Your task to perform on an android device: Open settings on Google Maps Image 0: 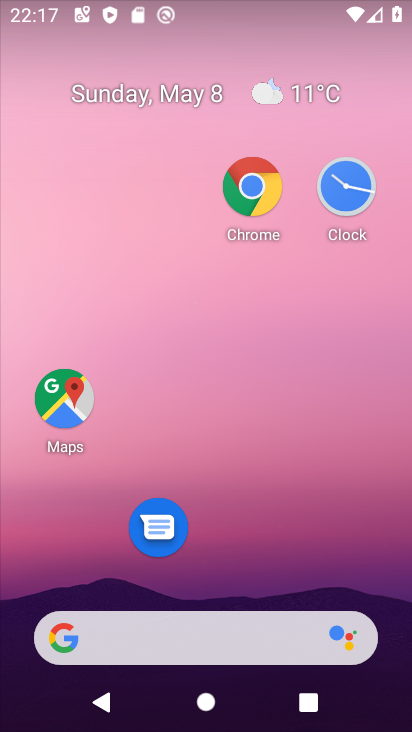
Step 0: click (45, 402)
Your task to perform on an android device: Open settings on Google Maps Image 1: 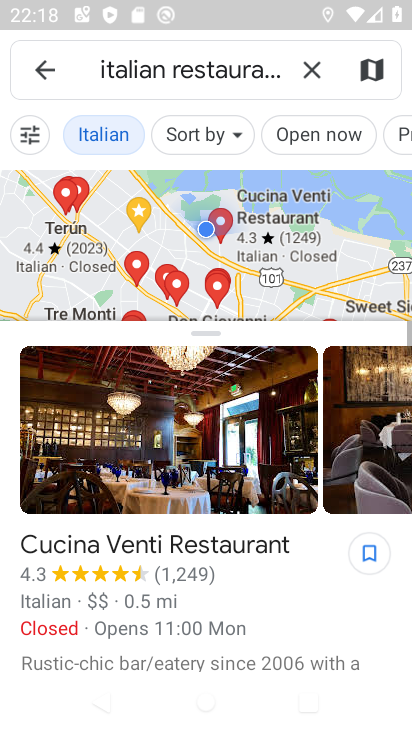
Step 1: click (38, 72)
Your task to perform on an android device: Open settings on Google Maps Image 2: 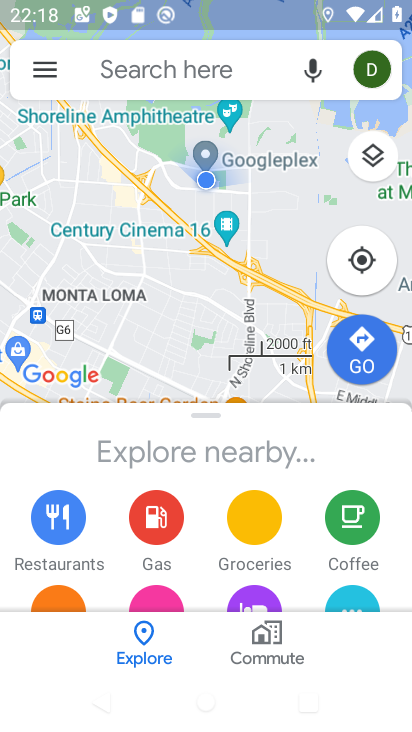
Step 2: click (38, 72)
Your task to perform on an android device: Open settings on Google Maps Image 3: 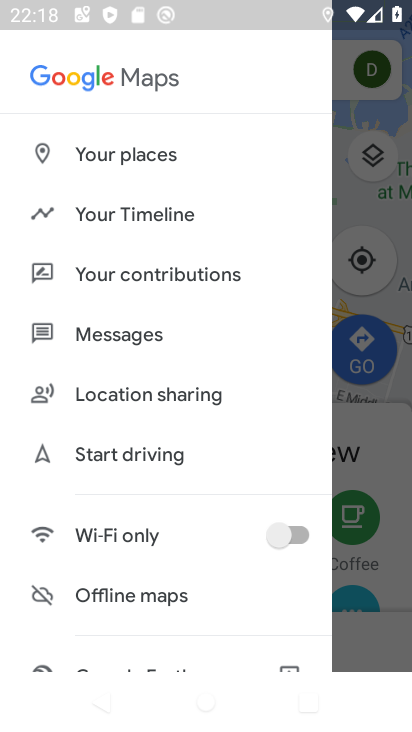
Step 3: drag from (145, 584) to (113, 172)
Your task to perform on an android device: Open settings on Google Maps Image 4: 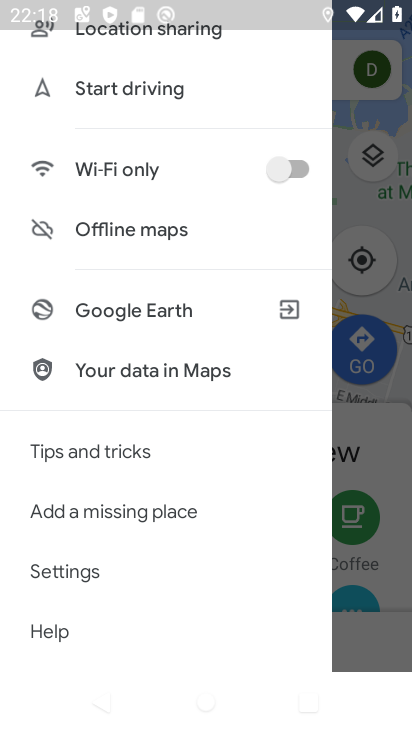
Step 4: click (144, 573)
Your task to perform on an android device: Open settings on Google Maps Image 5: 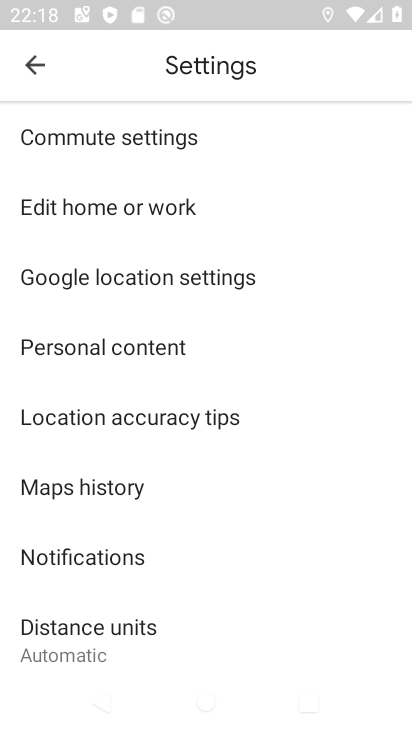
Step 5: task complete